Your task to perform on an android device: change the upload size in google photos Image 0: 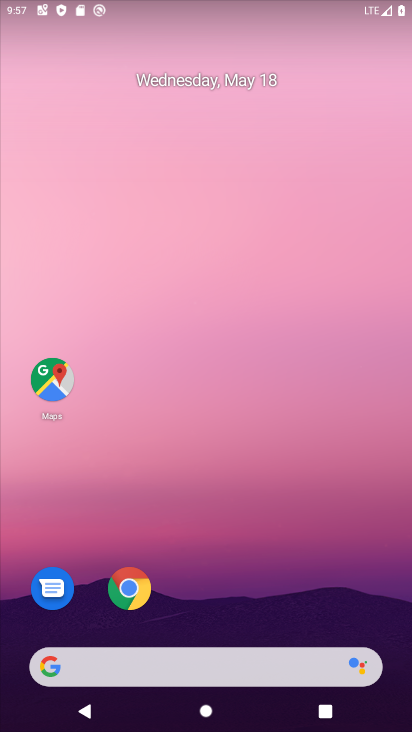
Step 0: drag from (382, 605) to (394, 21)
Your task to perform on an android device: change the upload size in google photos Image 1: 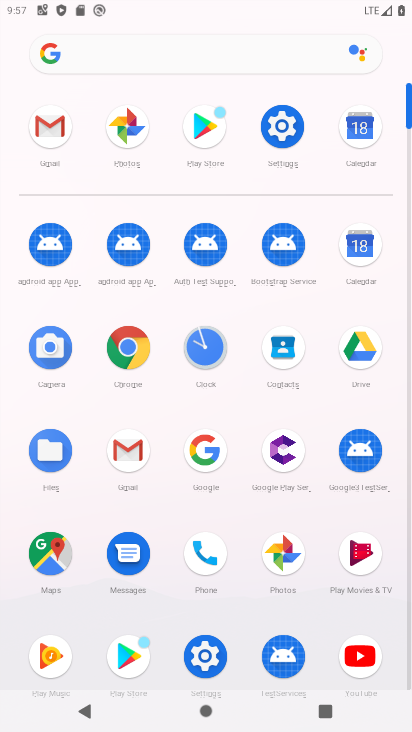
Step 1: click (125, 124)
Your task to perform on an android device: change the upload size in google photos Image 2: 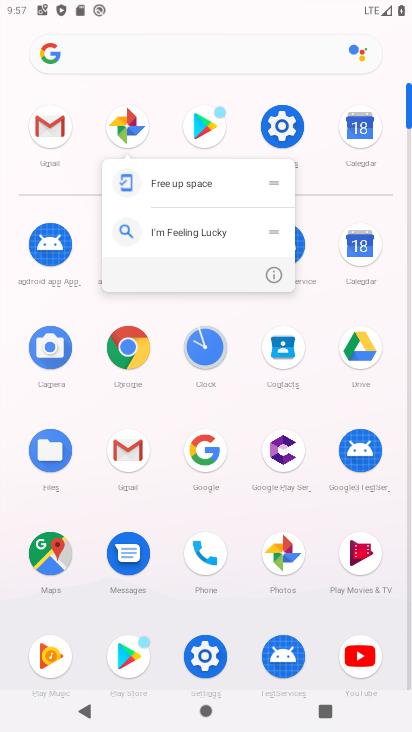
Step 2: click (125, 124)
Your task to perform on an android device: change the upload size in google photos Image 3: 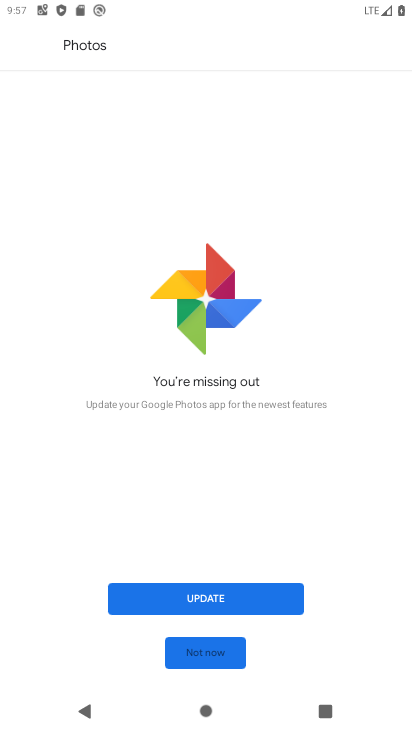
Step 3: click (202, 652)
Your task to perform on an android device: change the upload size in google photos Image 4: 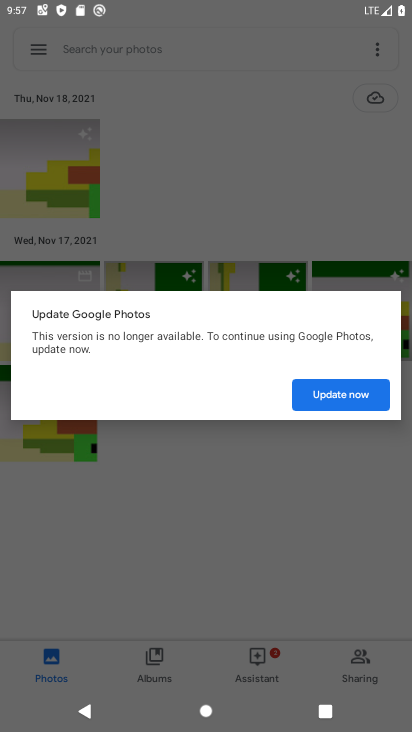
Step 4: click (361, 388)
Your task to perform on an android device: change the upload size in google photos Image 5: 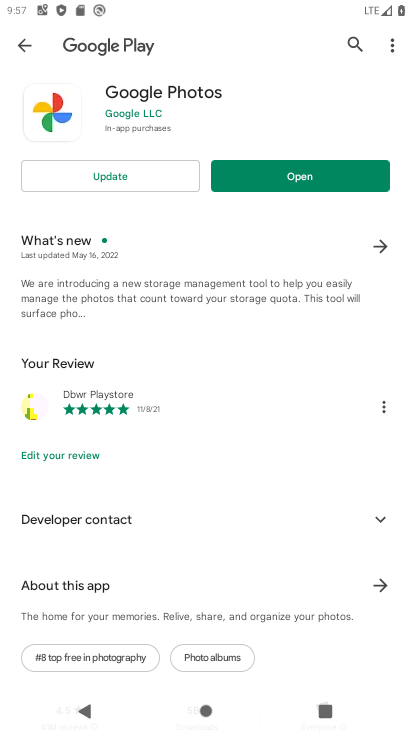
Step 5: click (256, 176)
Your task to perform on an android device: change the upload size in google photos Image 6: 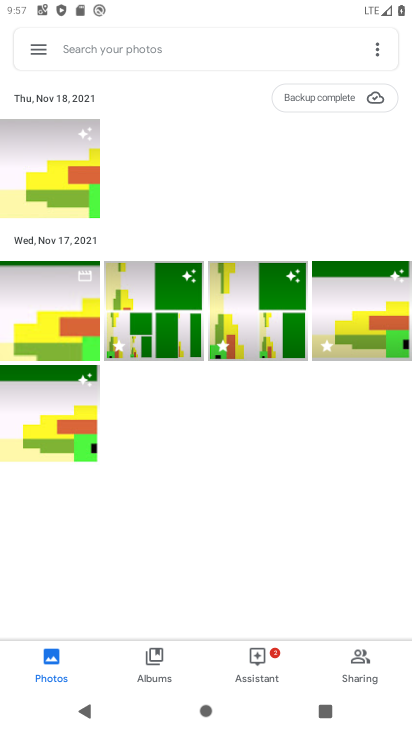
Step 6: click (32, 53)
Your task to perform on an android device: change the upload size in google photos Image 7: 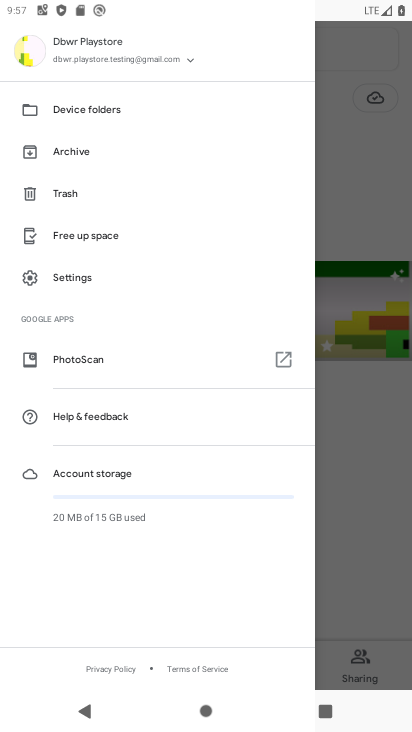
Step 7: click (70, 281)
Your task to perform on an android device: change the upload size in google photos Image 8: 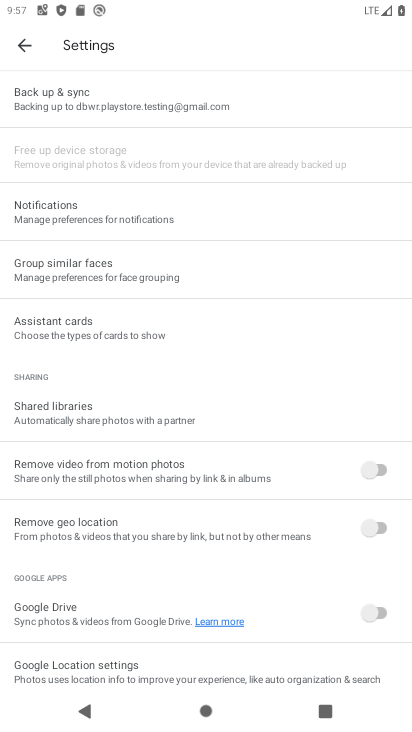
Step 8: click (57, 113)
Your task to perform on an android device: change the upload size in google photos Image 9: 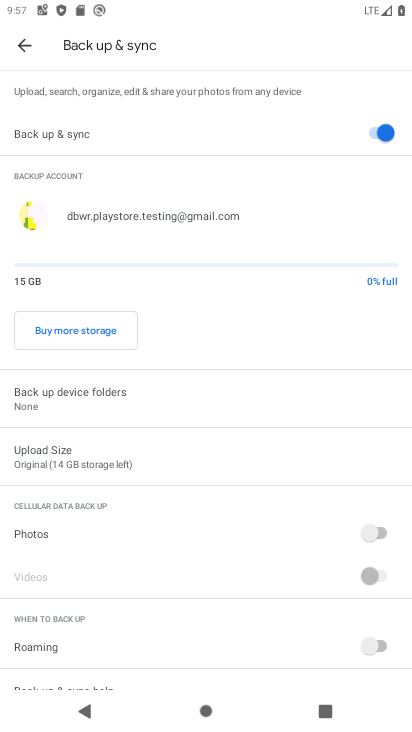
Step 9: click (68, 460)
Your task to perform on an android device: change the upload size in google photos Image 10: 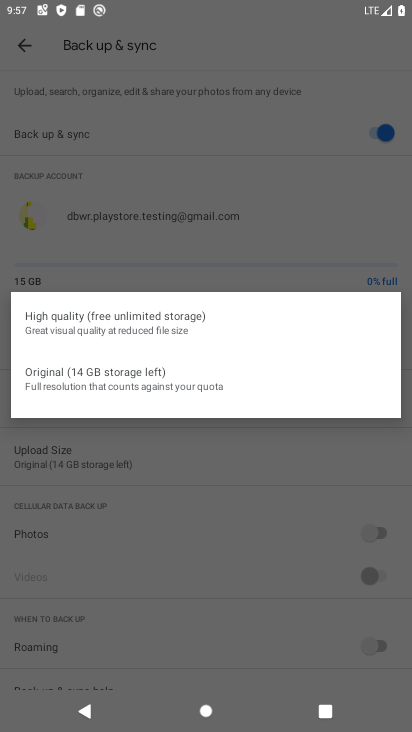
Step 10: click (26, 335)
Your task to perform on an android device: change the upload size in google photos Image 11: 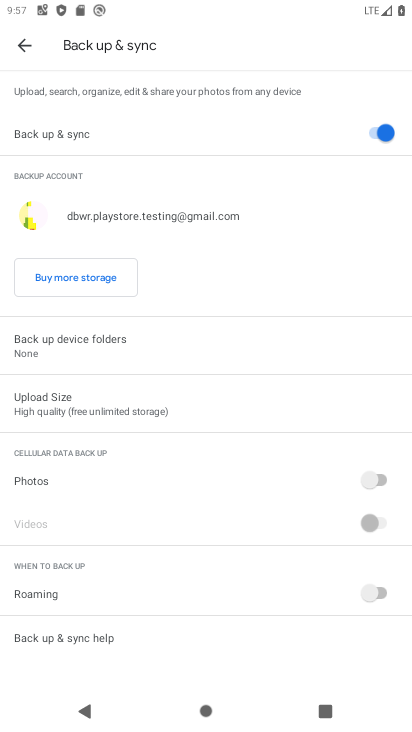
Step 11: task complete